Your task to perform on an android device: Go to Yahoo.com Image 0: 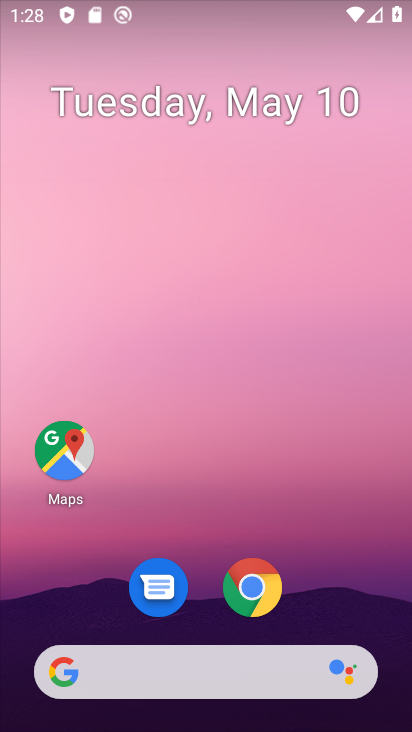
Step 0: click (251, 595)
Your task to perform on an android device: Go to Yahoo.com Image 1: 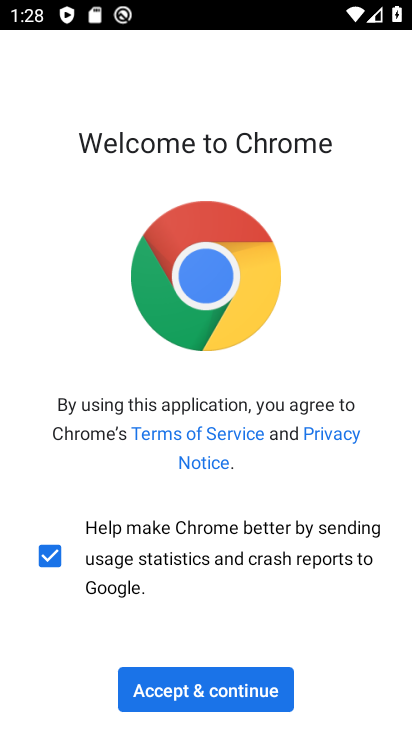
Step 1: click (246, 686)
Your task to perform on an android device: Go to Yahoo.com Image 2: 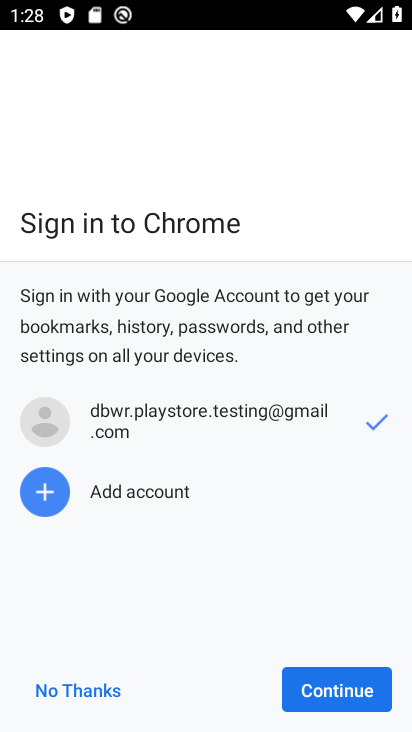
Step 2: click (307, 684)
Your task to perform on an android device: Go to Yahoo.com Image 3: 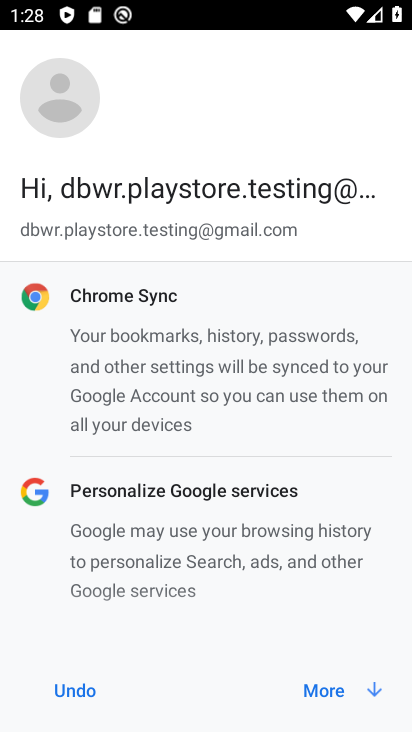
Step 3: click (323, 693)
Your task to perform on an android device: Go to Yahoo.com Image 4: 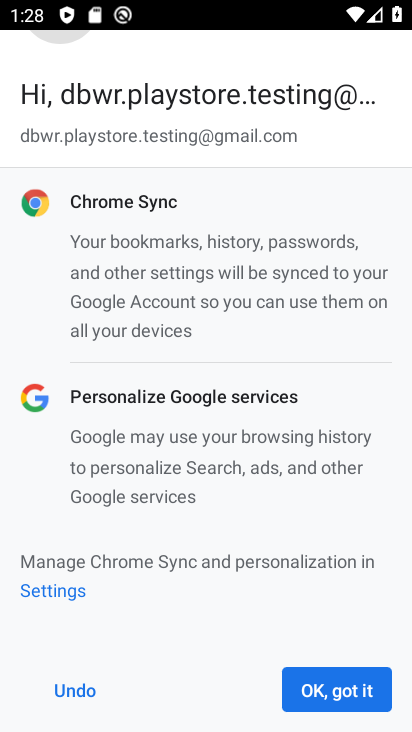
Step 4: click (323, 693)
Your task to perform on an android device: Go to Yahoo.com Image 5: 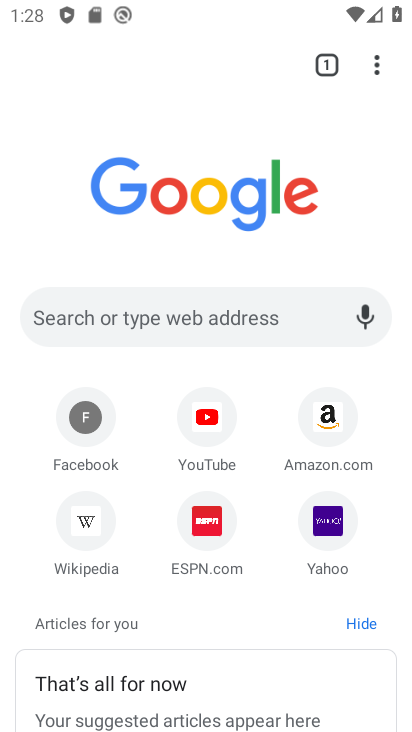
Step 5: click (347, 525)
Your task to perform on an android device: Go to Yahoo.com Image 6: 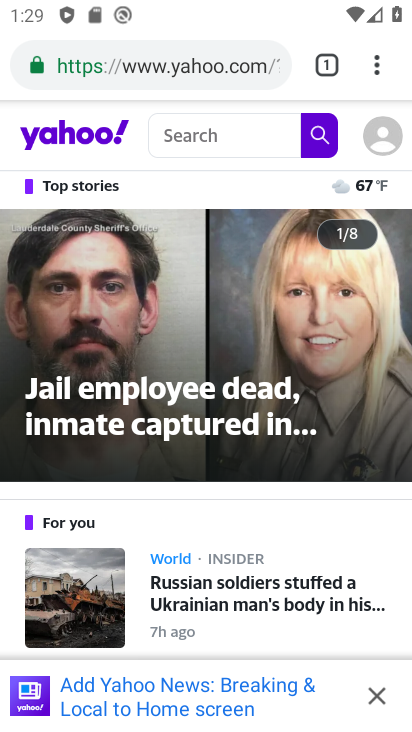
Step 6: task complete